Your task to perform on an android device: check android version Image 0: 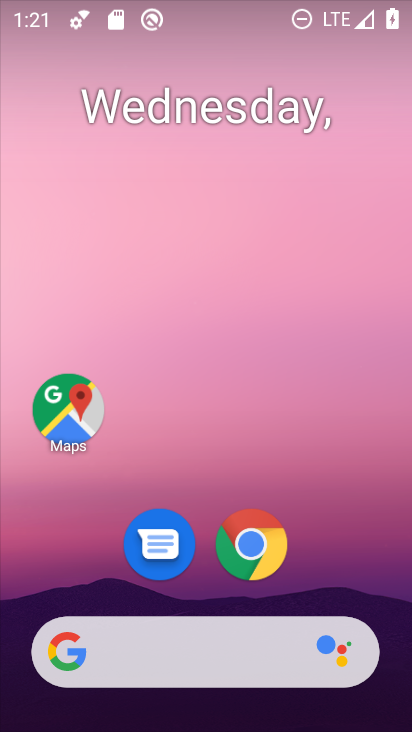
Step 0: drag from (346, 564) to (317, 87)
Your task to perform on an android device: check android version Image 1: 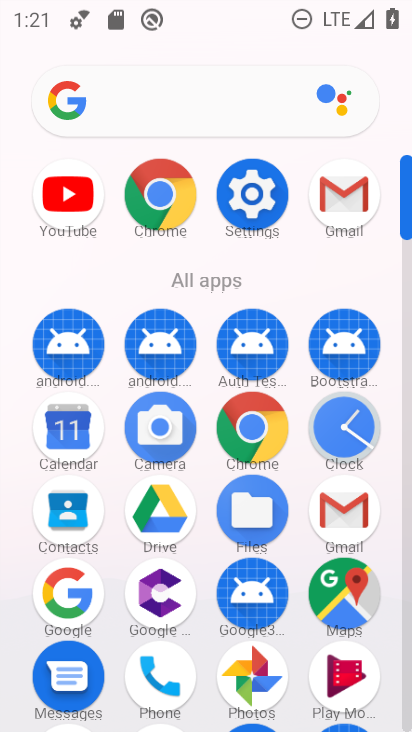
Step 1: click (231, 194)
Your task to perform on an android device: check android version Image 2: 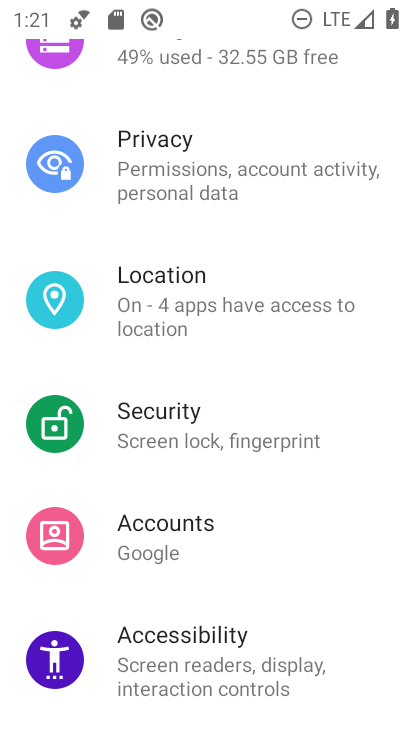
Step 2: drag from (215, 679) to (188, 583)
Your task to perform on an android device: check android version Image 3: 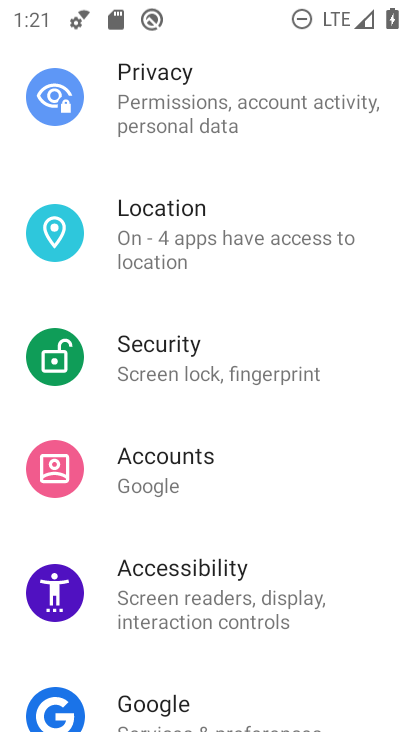
Step 3: drag from (188, 683) to (183, 332)
Your task to perform on an android device: check android version Image 4: 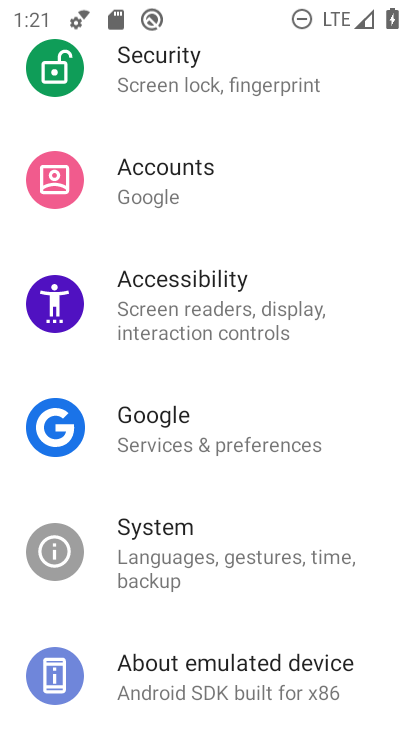
Step 4: click (197, 684)
Your task to perform on an android device: check android version Image 5: 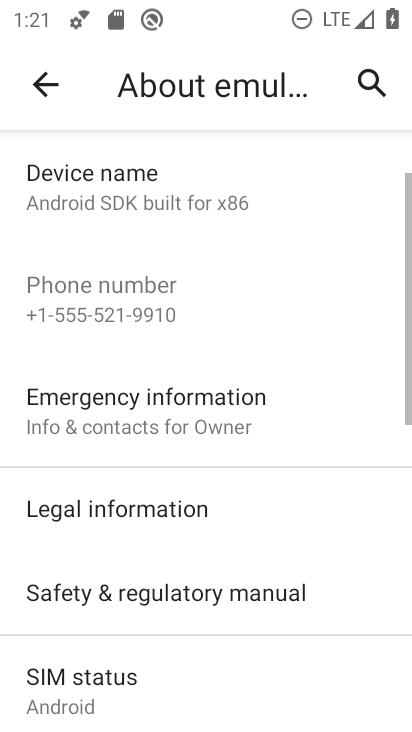
Step 5: drag from (197, 681) to (241, 405)
Your task to perform on an android device: check android version Image 6: 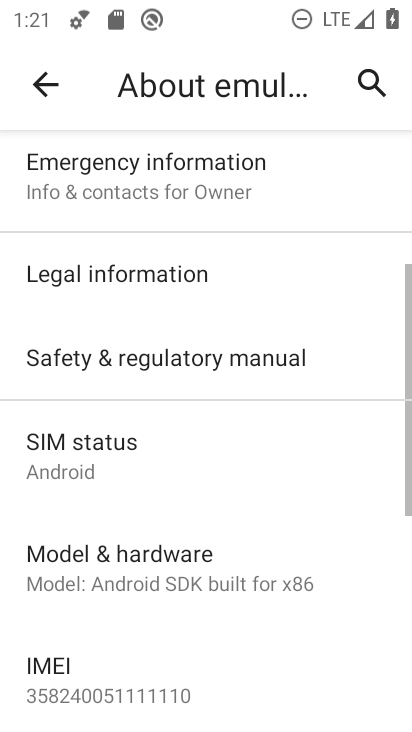
Step 6: drag from (284, 659) to (267, 283)
Your task to perform on an android device: check android version Image 7: 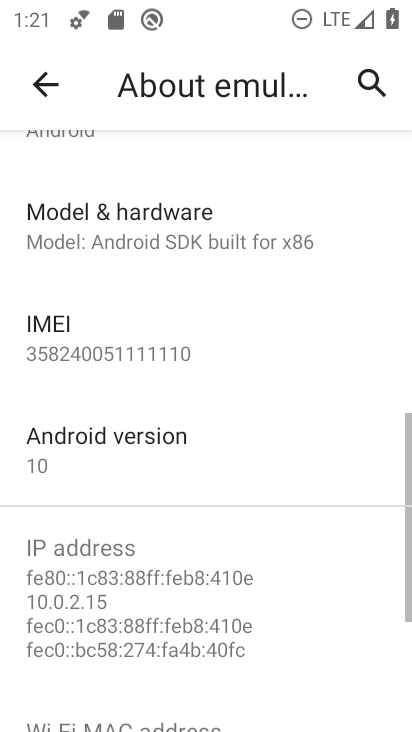
Step 7: drag from (237, 620) to (237, 330)
Your task to perform on an android device: check android version Image 8: 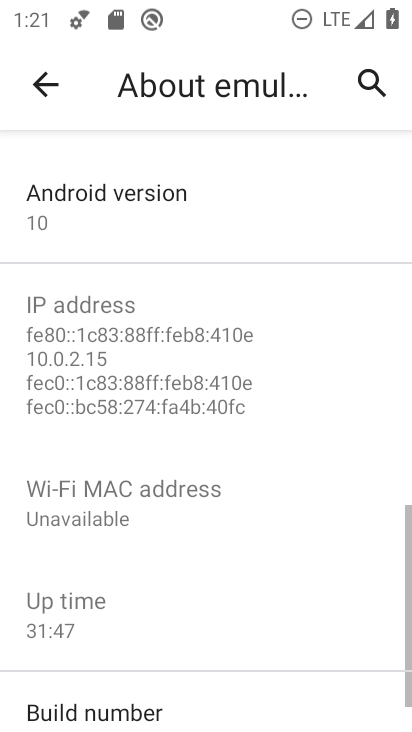
Step 8: click (197, 216)
Your task to perform on an android device: check android version Image 9: 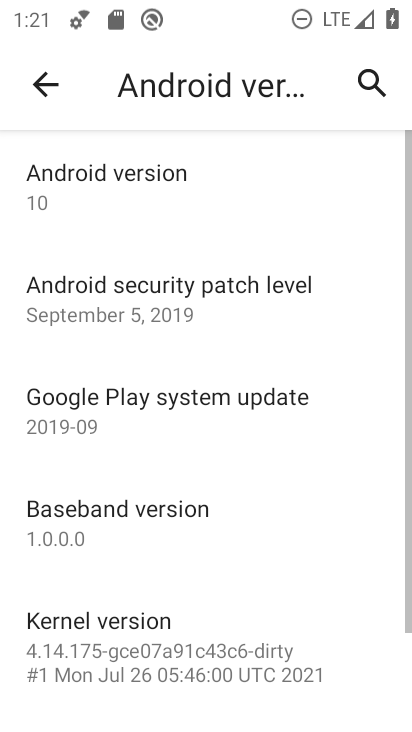
Step 9: click (309, 175)
Your task to perform on an android device: check android version Image 10: 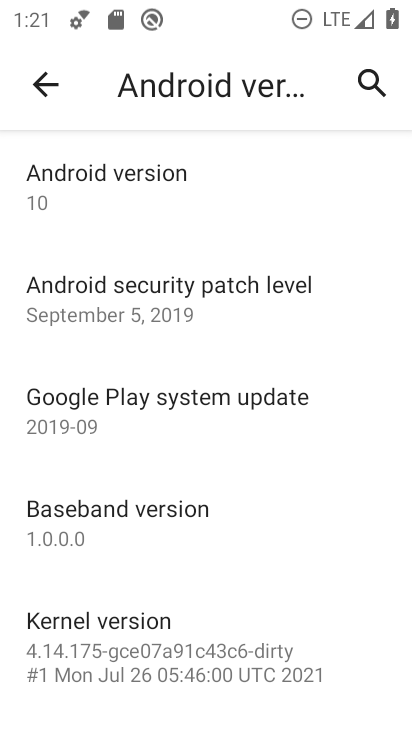
Step 10: task complete